Your task to perform on an android device: Go to CNN.com Image 0: 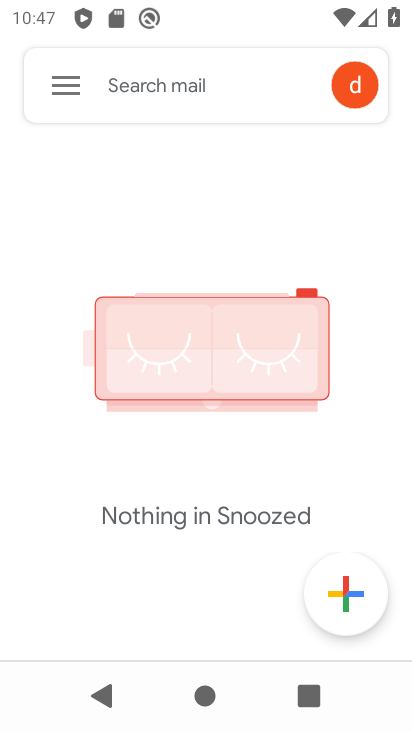
Step 0: press home button
Your task to perform on an android device: Go to CNN.com Image 1: 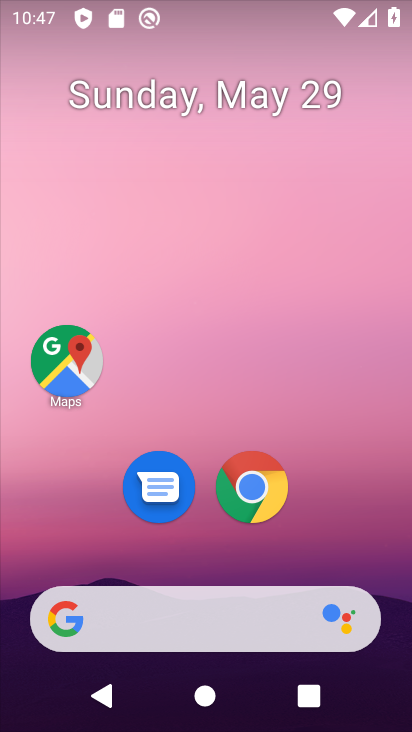
Step 1: click (249, 479)
Your task to perform on an android device: Go to CNN.com Image 2: 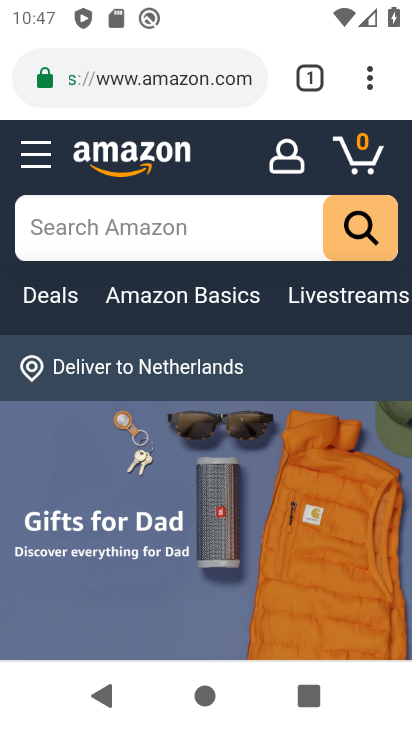
Step 2: click (310, 73)
Your task to perform on an android device: Go to CNN.com Image 3: 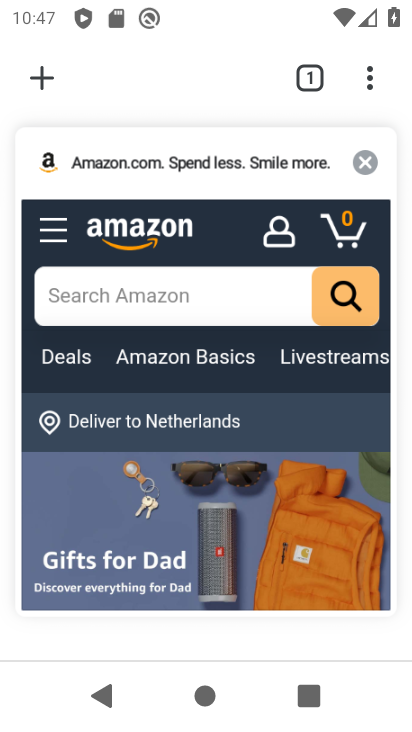
Step 3: click (367, 159)
Your task to perform on an android device: Go to CNN.com Image 4: 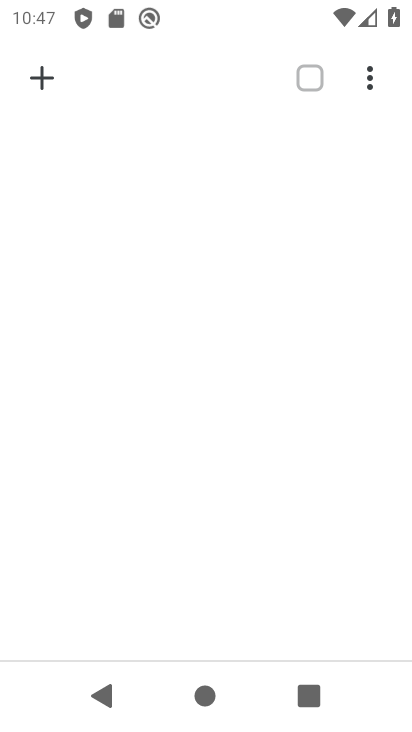
Step 4: click (47, 80)
Your task to perform on an android device: Go to CNN.com Image 5: 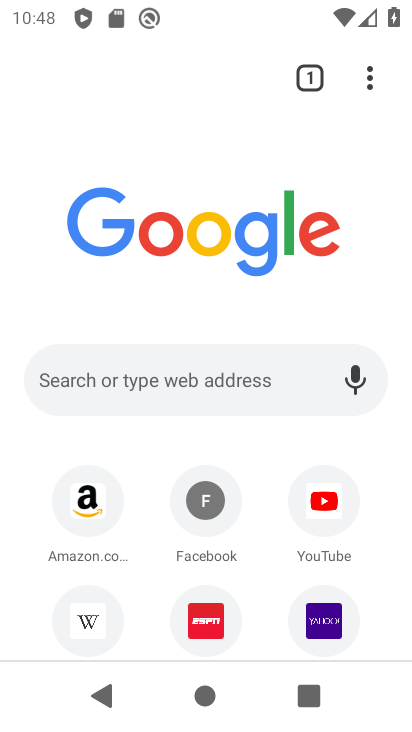
Step 5: click (162, 374)
Your task to perform on an android device: Go to CNN.com Image 6: 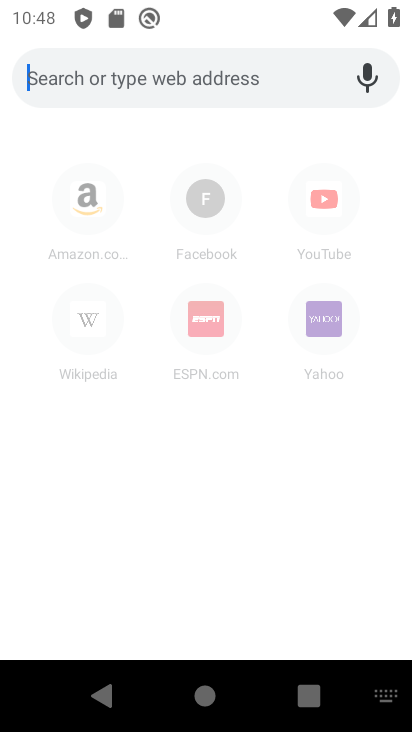
Step 6: type "cnn.com"
Your task to perform on an android device: Go to CNN.com Image 7: 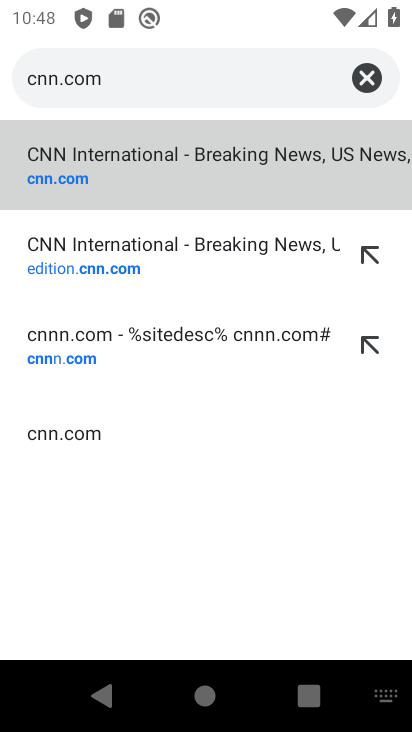
Step 7: click (94, 172)
Your task to perform on an android device: Go to CNN.com Image 8: 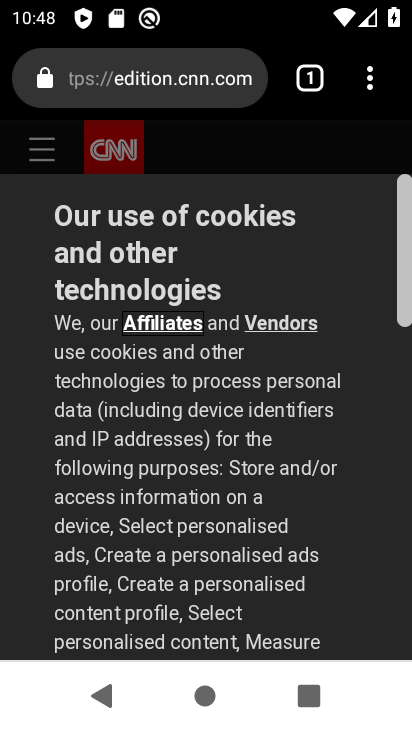
Step 8: drag from (267, 589) to (307, 249)
Your task to perform on an android device: Go to CNN.com Image 9: 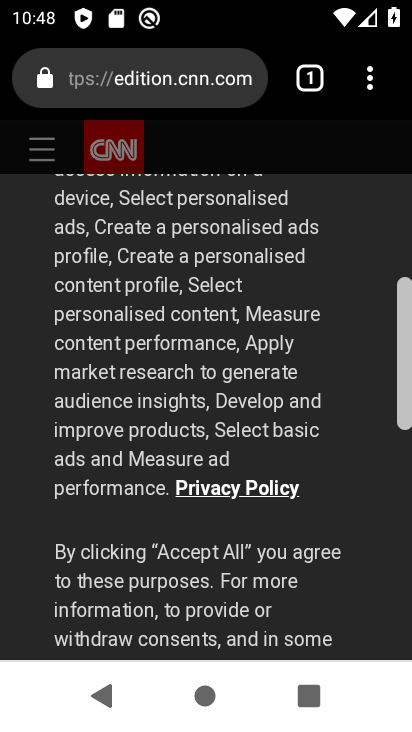
Step 9: drag from (271, 595) to (268, 213)
Your task to perform on an android device: Go to CNN.com Image 10: 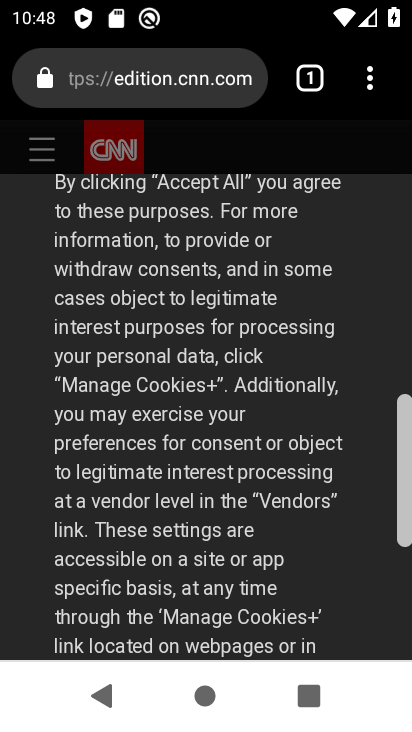
Step 10: drag from (230, 579) to (225, 192)
Your task to perform on an android device: Go to CNN.com Image 11: 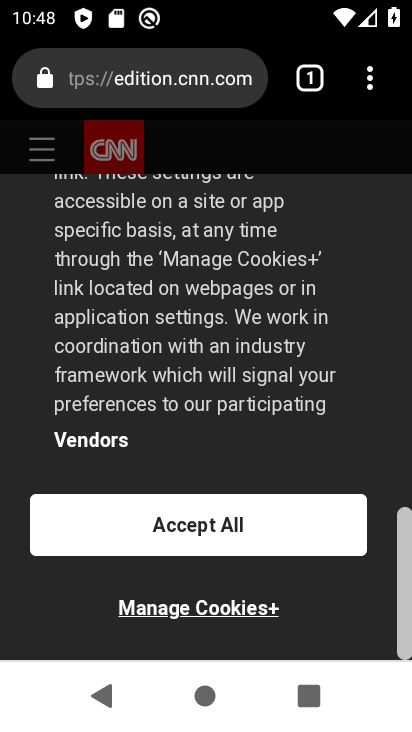
Step 11: click (193, 527)
Your task to perform on an android device: Go to CNN.com Image 12: 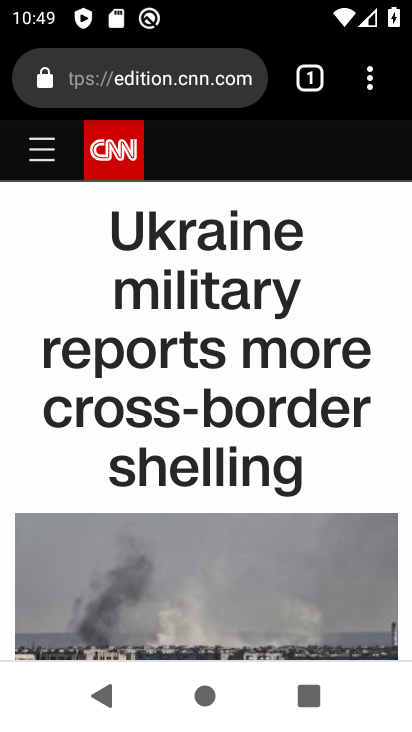
Step 12: task complete